Your task to perform on an android device: Search for a 4k TV on Best Buy Image 0: 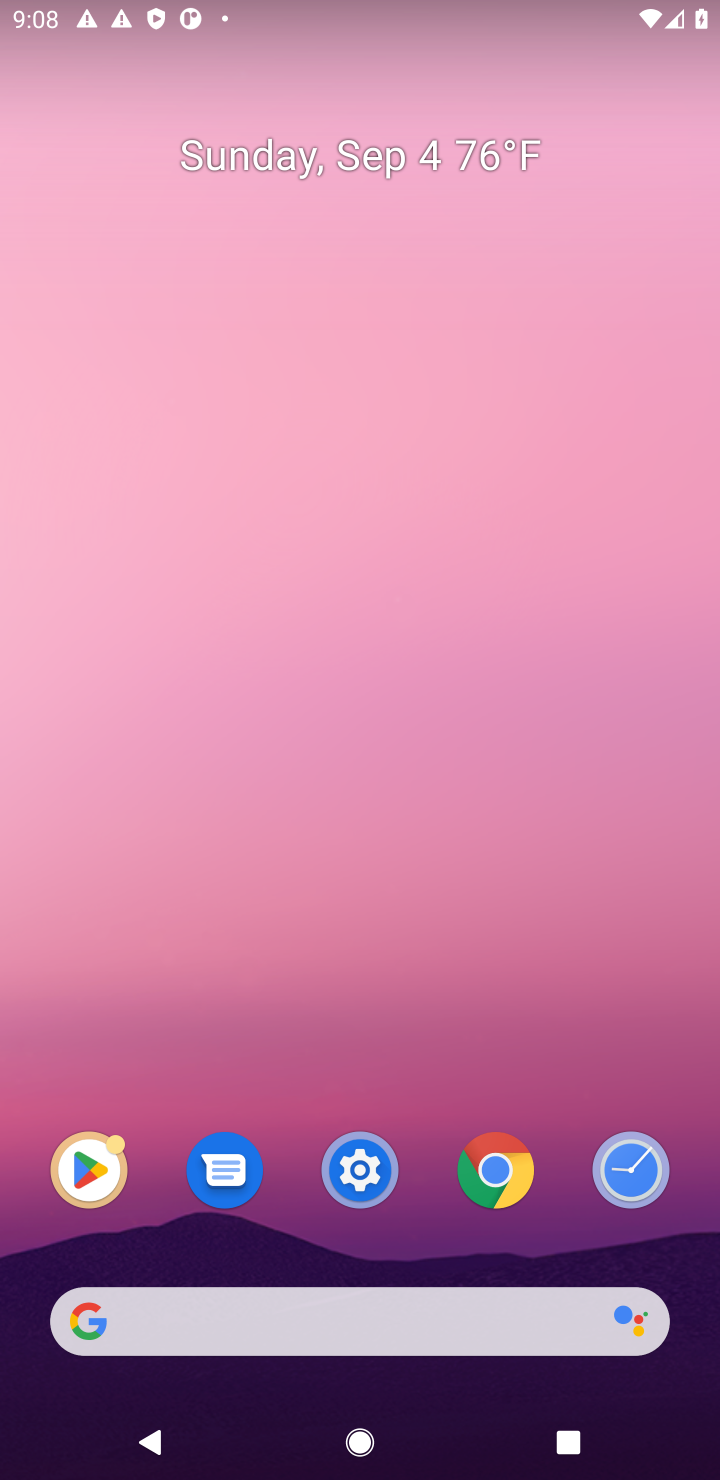
Step 0: click (386, 1307)
Your task to perform on an android device: Search for a 4k TV on Best Buy Image 1: 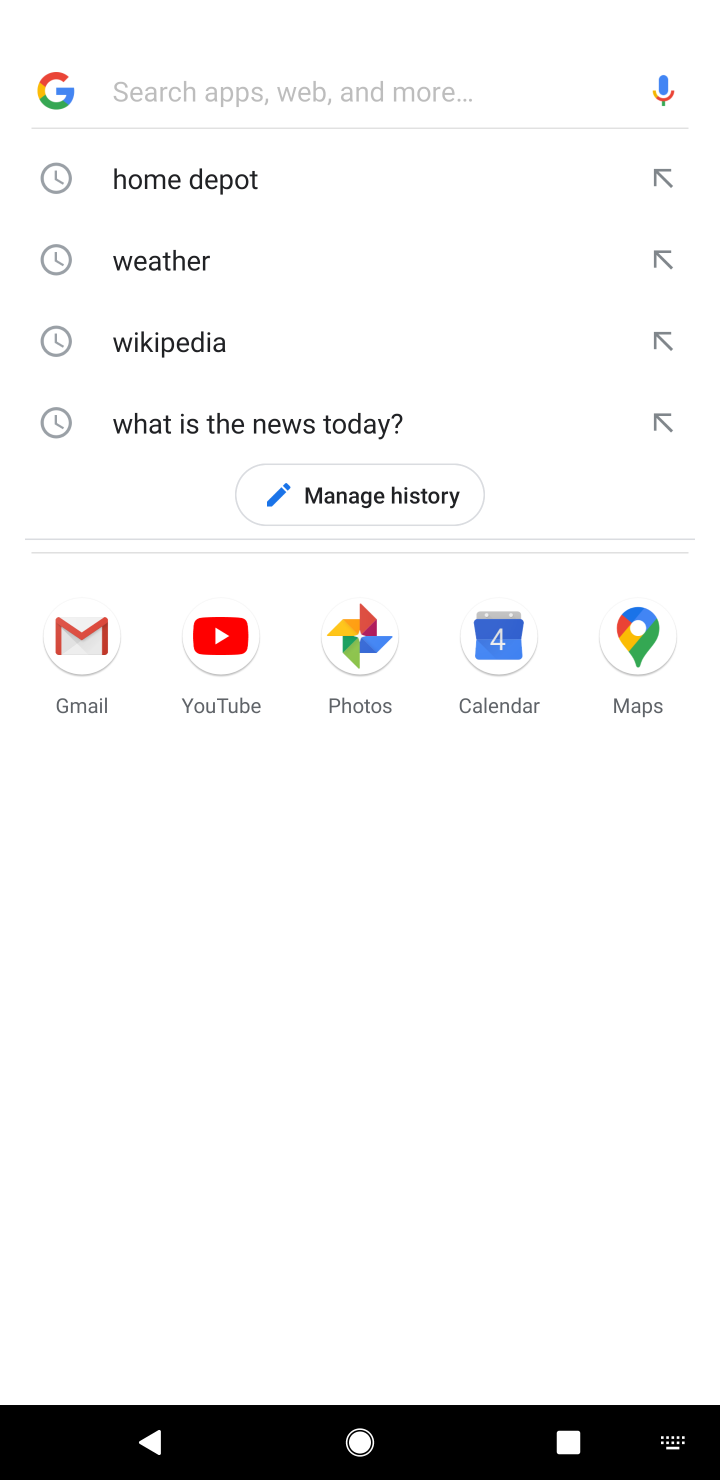
Step 1: type "Best Buy"
Your task to perform on an android device: Search for a 4k TV on Best Buy Image 2: 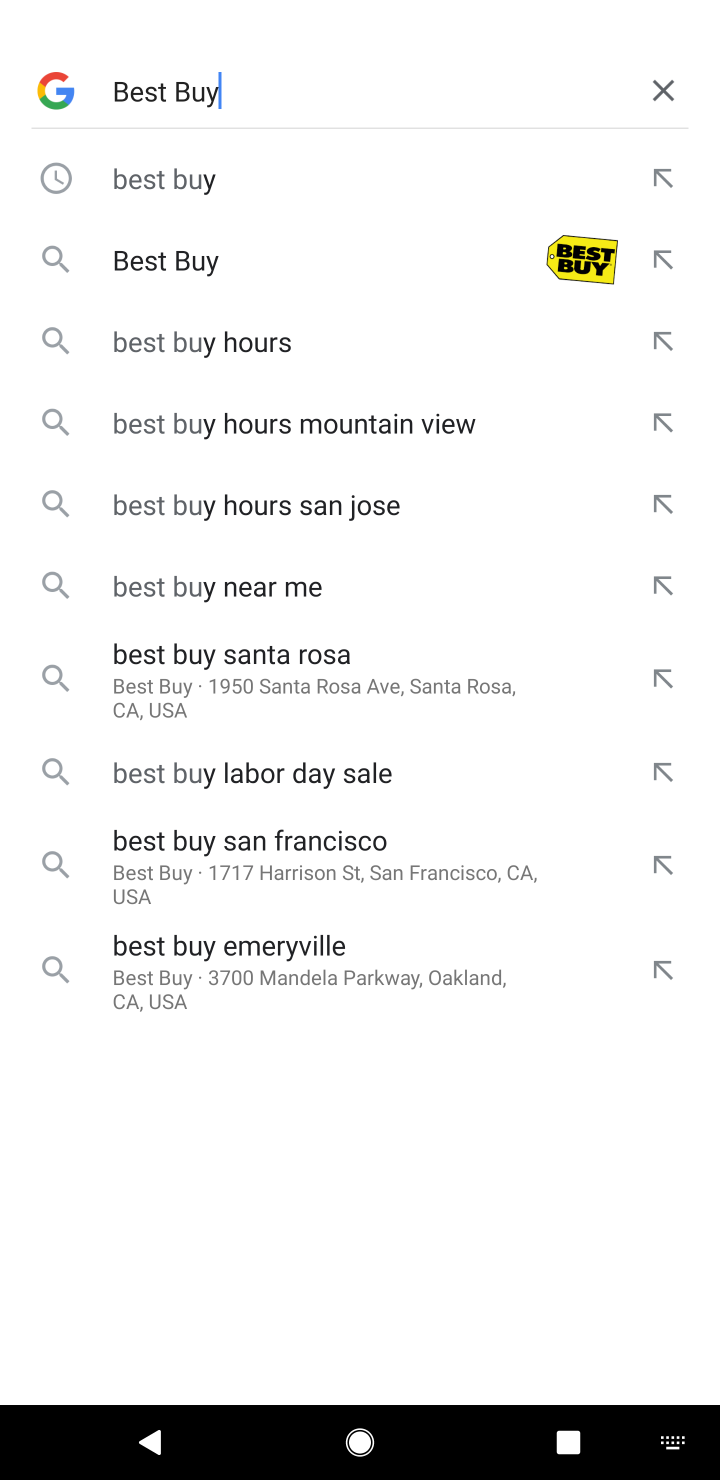
Step 2: type ""
Your task to perform on an android device: Search for a 4k TV on Best Buy Image 3: 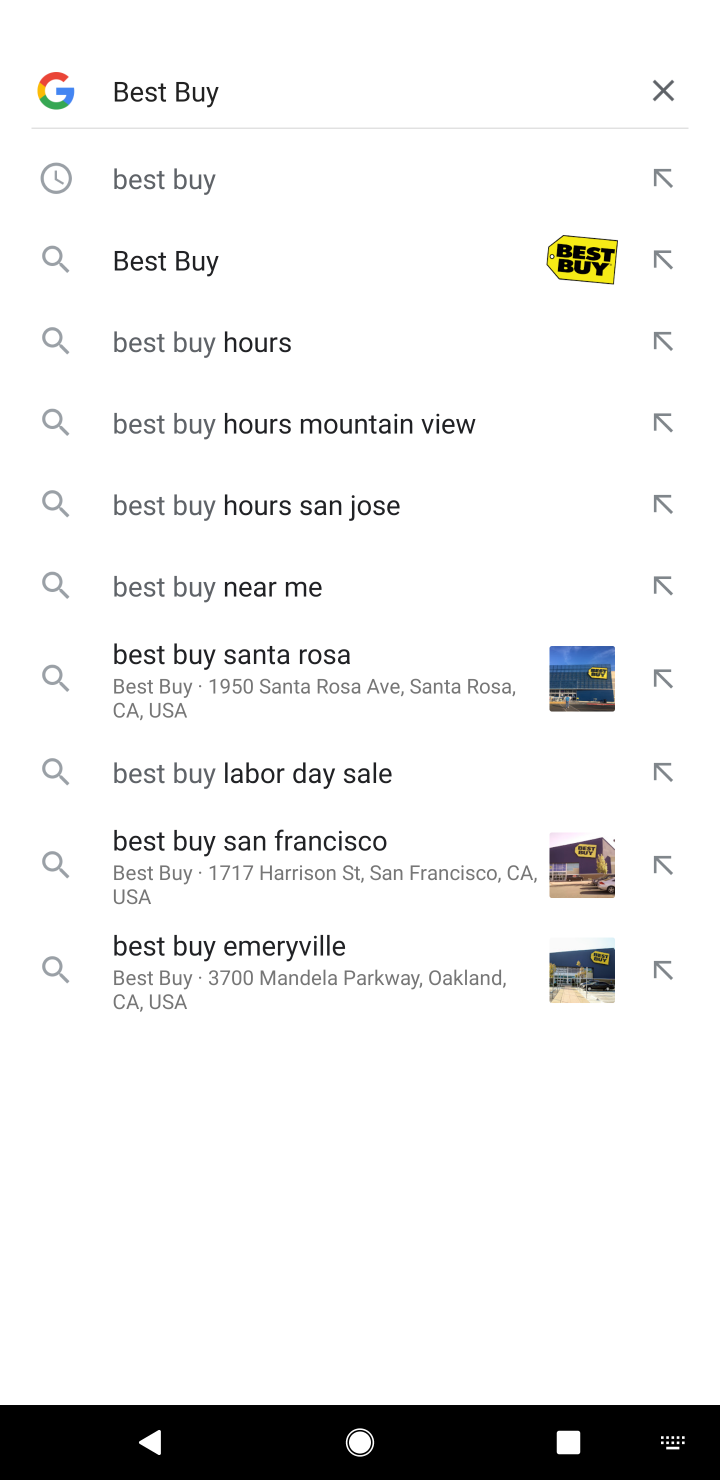
Step 3: click (258, 176)
Your task to perform on an android device: Search for a 4k TV on Best Buy Image 4: 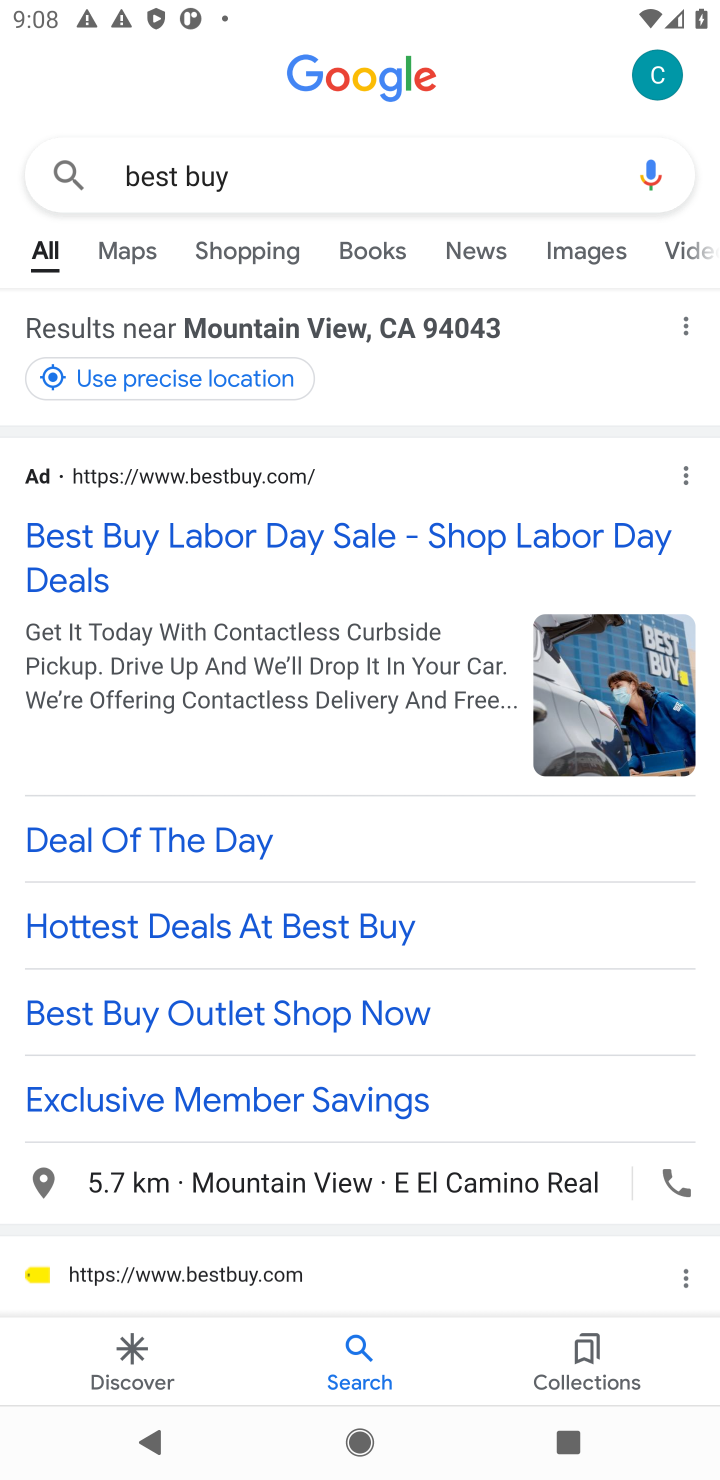
Step 4: drag from (291, 689) to (323, 227)
Your task to perform on an android device: Search for a 4k TV on Best Buy Image 5: 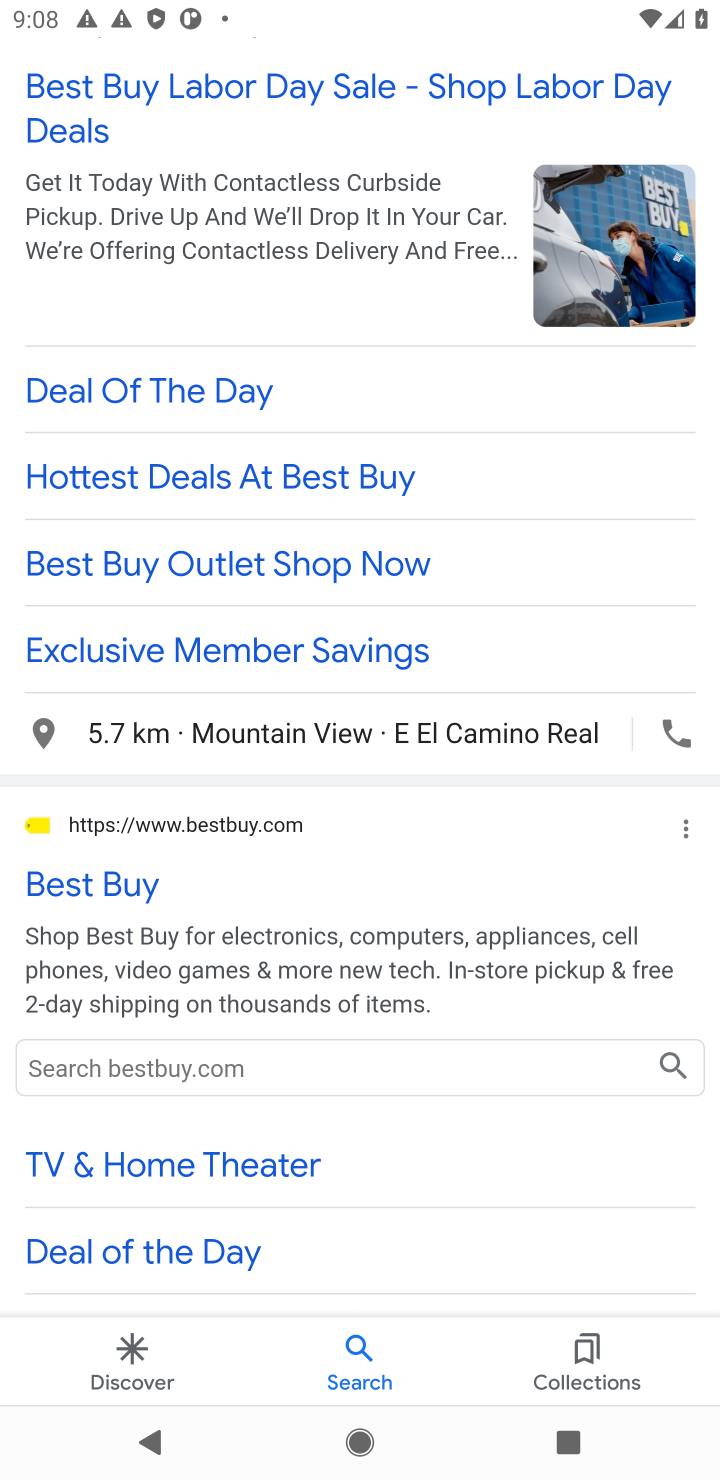
Step 5: drag from (347, 540) to (378, 406)
Your task to perform on an android device: Search for a 4k TV on Best Buy Image 6: 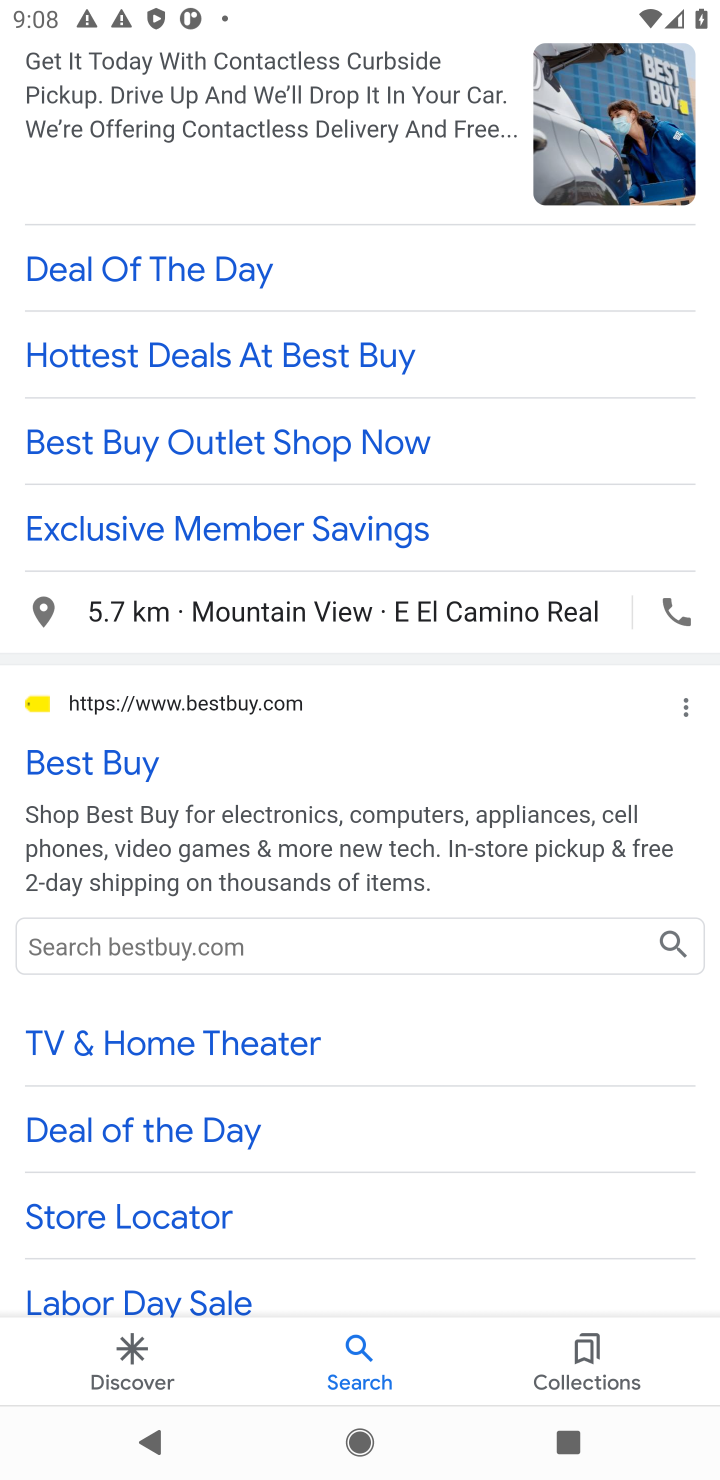
Step 6: click (113, 762)
Your task to perform on an android device: Search for a 4k TV on Best Buy Image 7: 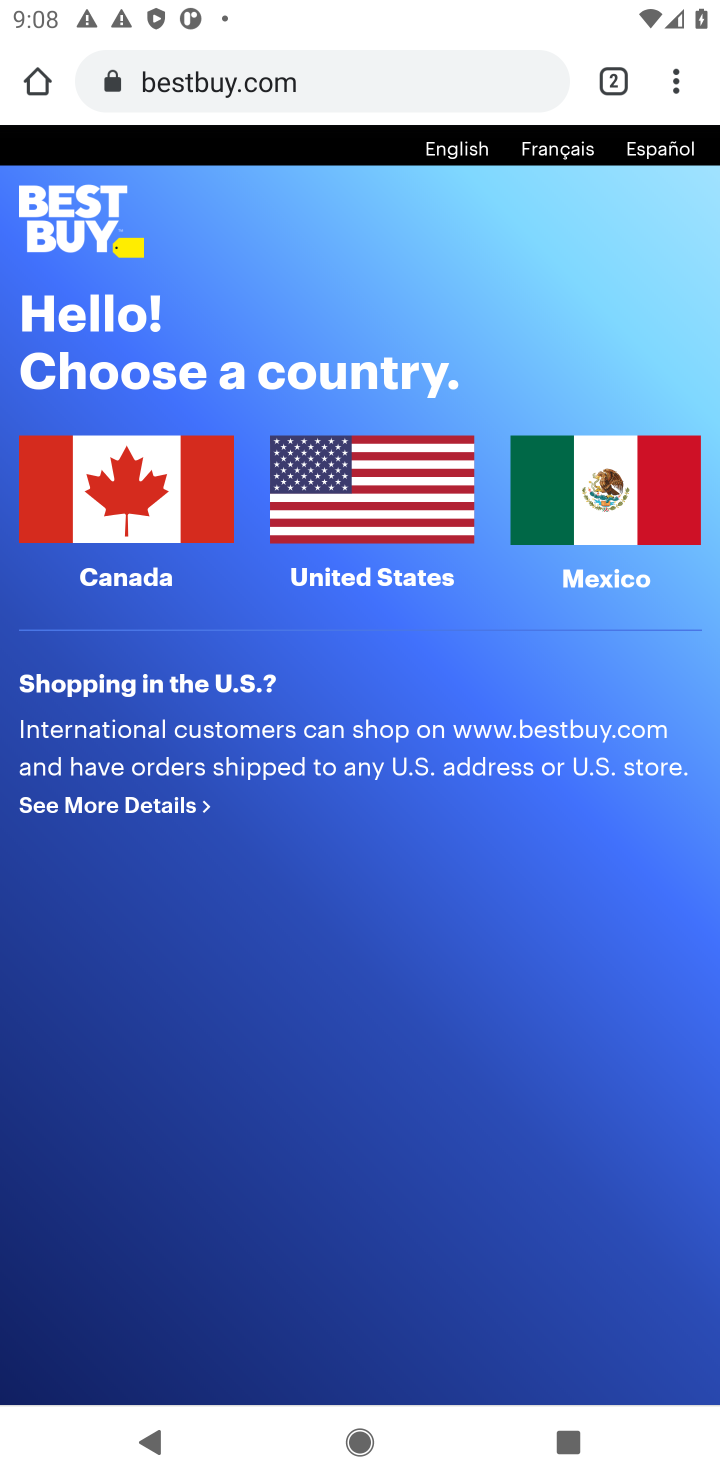
Step 7: click (330, 532)
Your task to perform on an android device: Search for a 4k TV on Best Buy Image 8: 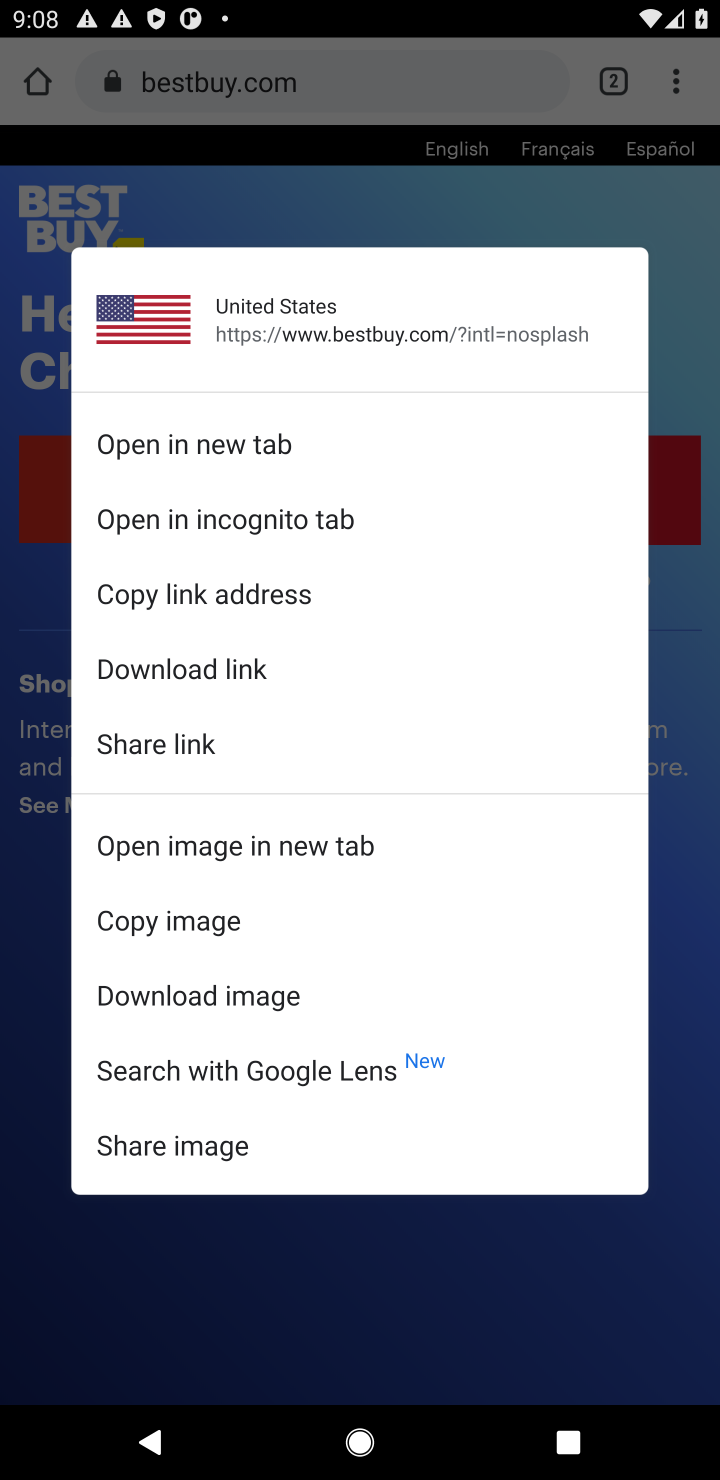
Step 8: click (113, 1267)
Your task to perform on an android device: Search for a 4k TV on Best Buy Image 9: 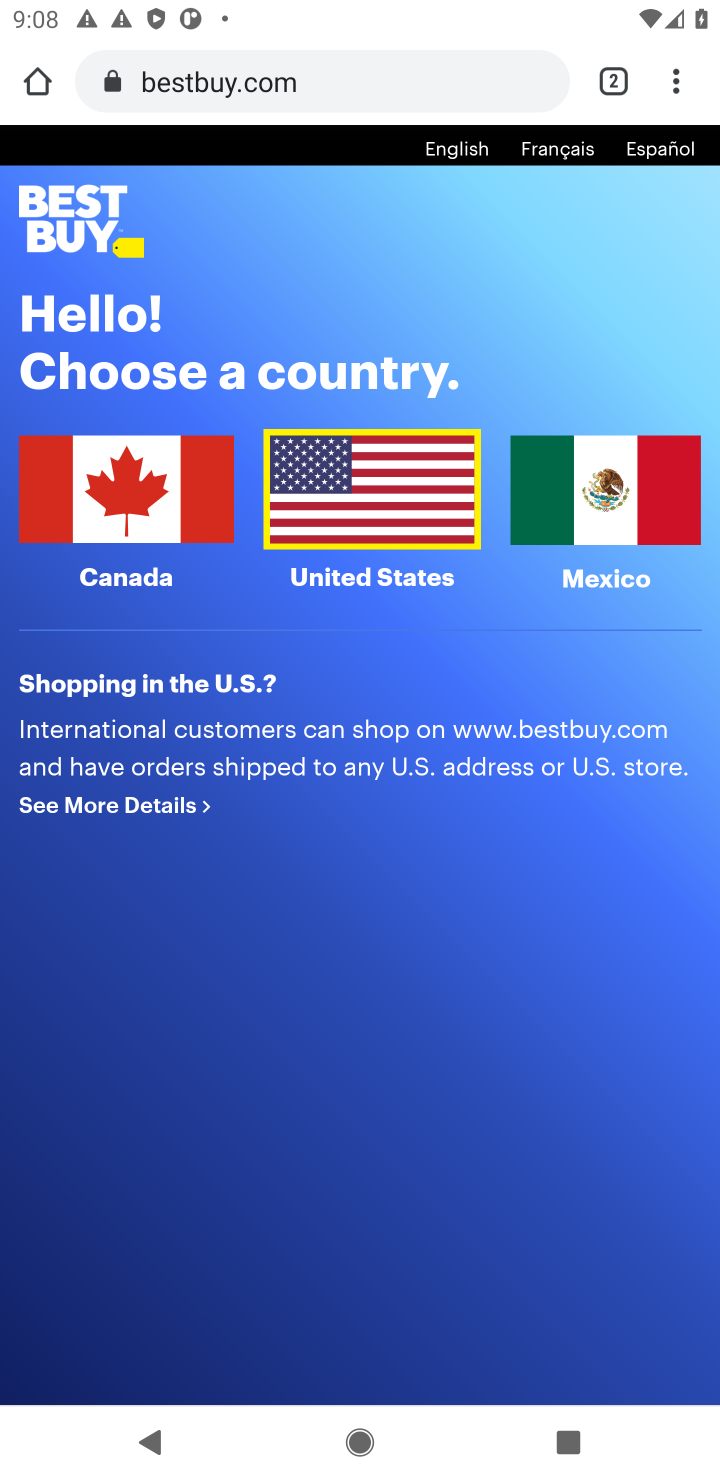
Step 9: click (397, 524)
Your task to perform on an android device: Search for a 4k TV on Best Buy Image 10: 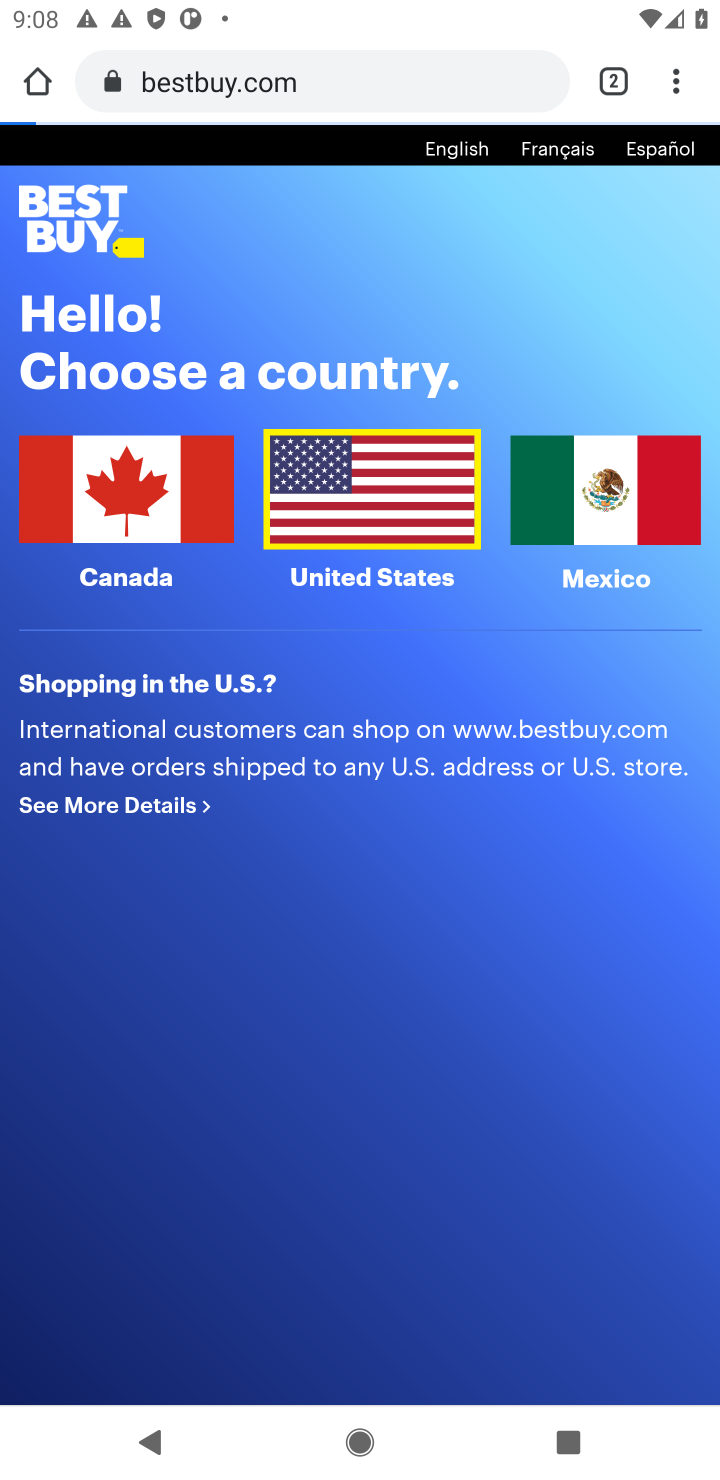
Step 10: click (371, 501)
Your task to perform on an android device: Search for a 4k TV on Best Buy Image 11: 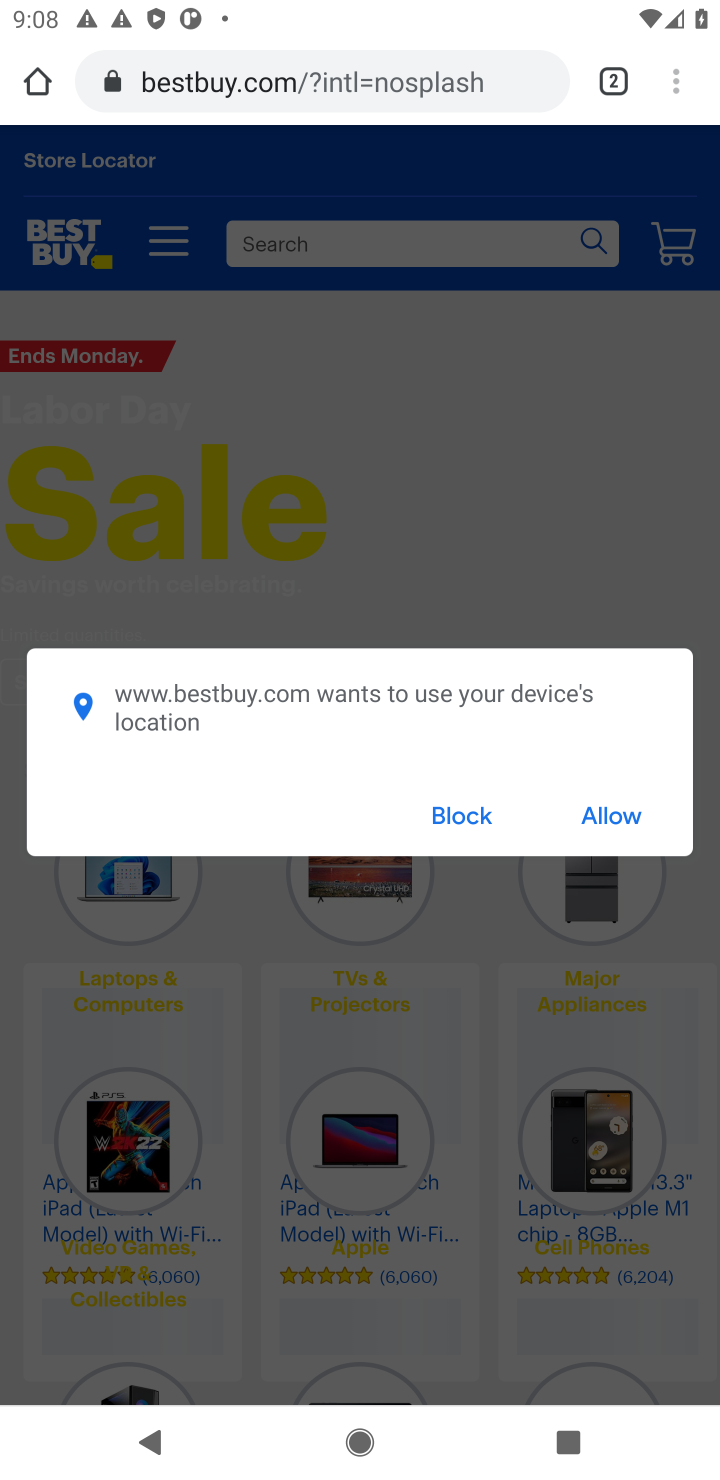
Step 11: click (447, 249)
Your task to perform on an android device: Search for a 4k TV on Best Buy Image 12: 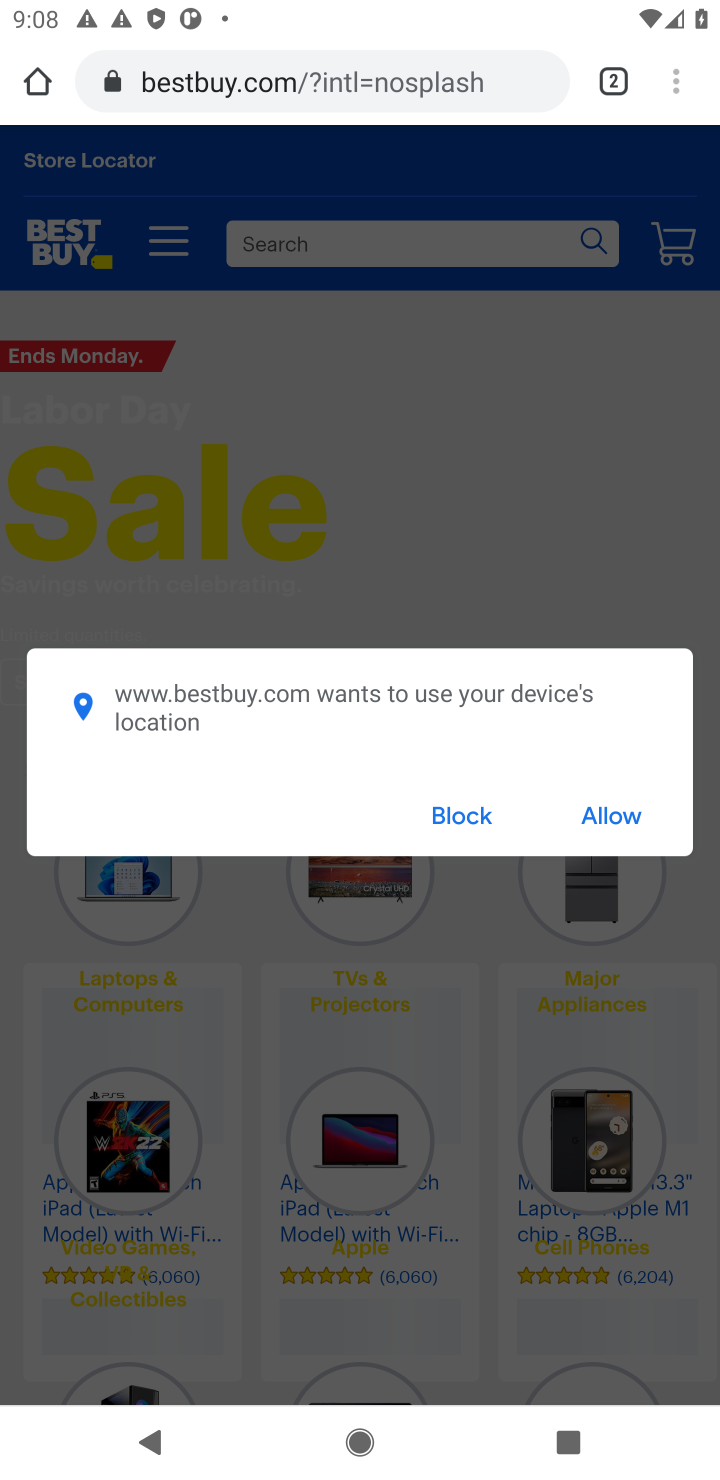
Step 12: click (620, 818)
Your task to perform on an android device: Search for a 4k TV on Best Buy Image 13: 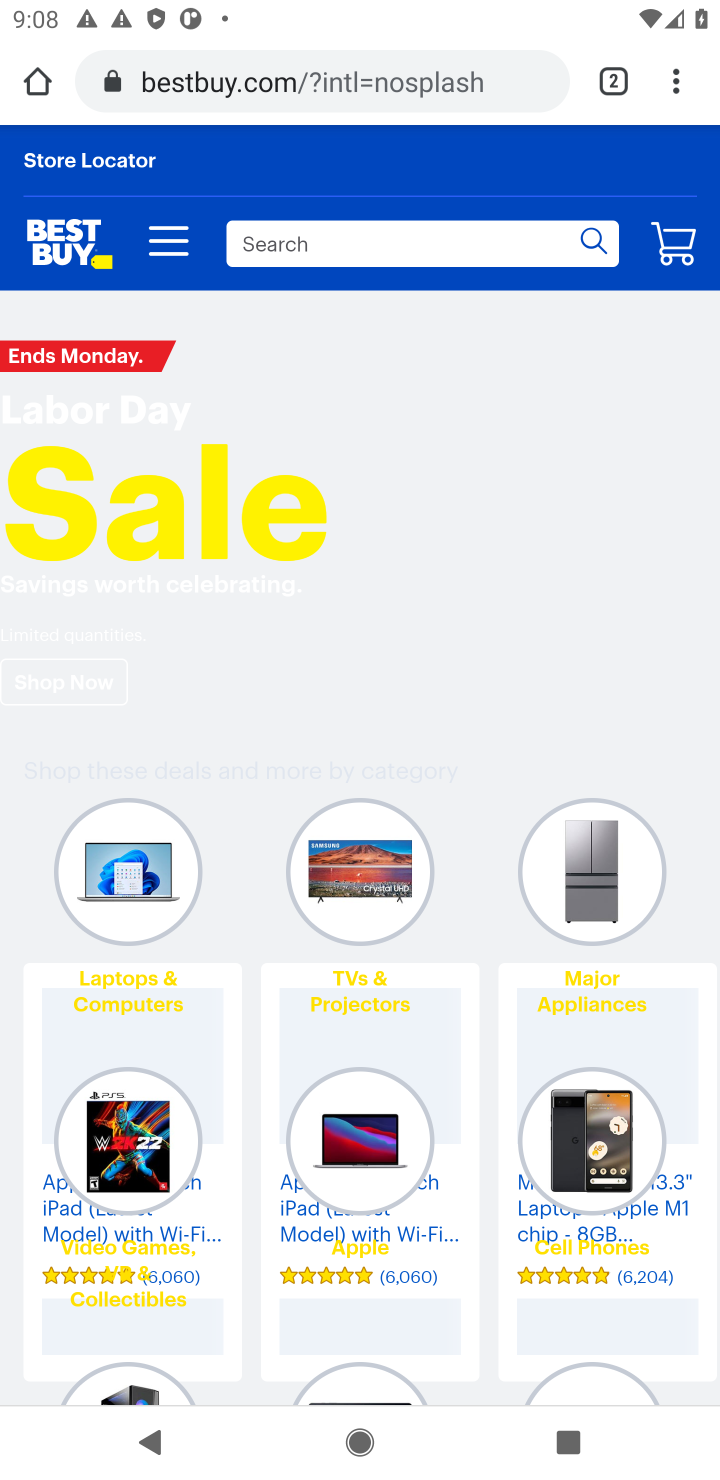
Step 13: click (407, 234)
Your task to perform on an android device: Search for a 4k TV on Best Buy Image 14: 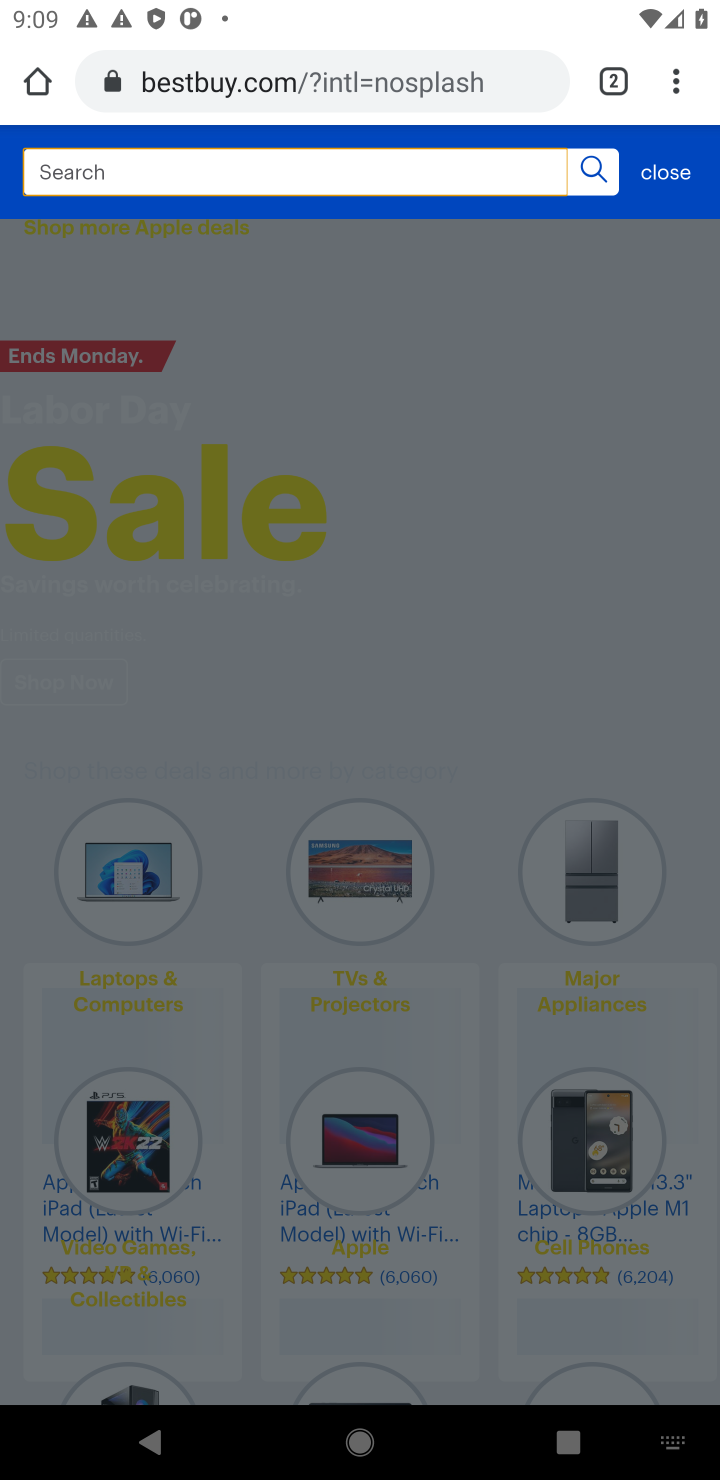
Step 14: type "4k TV "
Your task to perform on an android device: Search for a 4k TV on Best Buy Image 15: 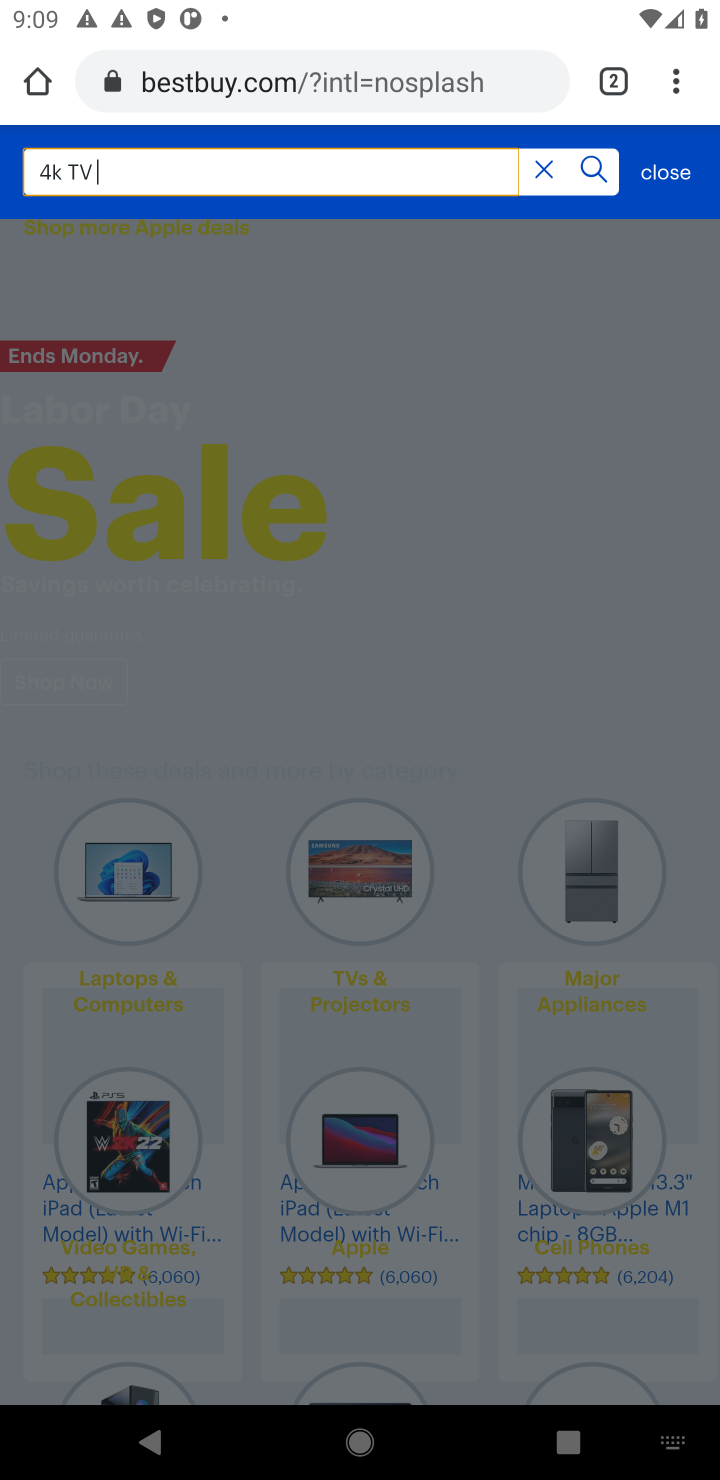
Step 15: type ""
Your task to perform on an android device: Search for a 4k TV on Best Buy Image 16: 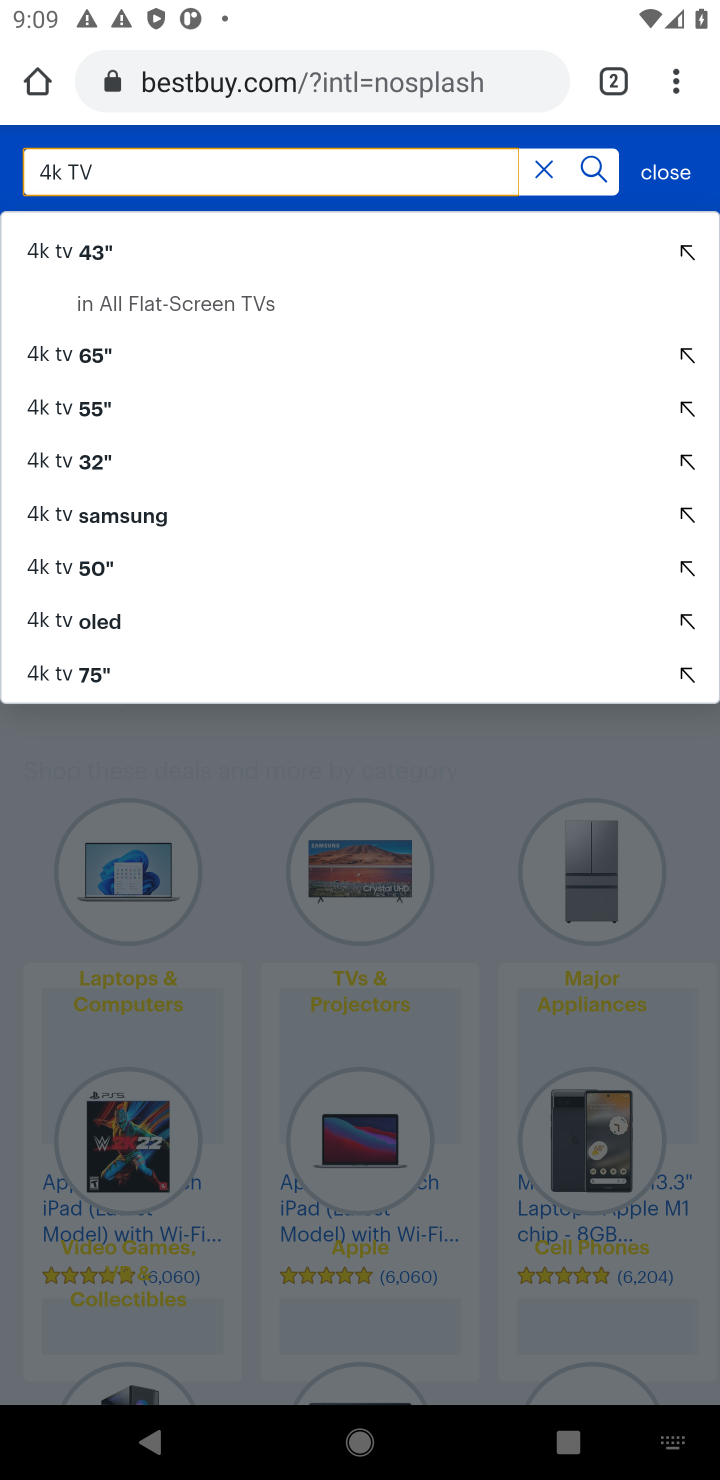
Step 16: click (608, 173)
Your task to perform on an android device: Search for a 4k TV on Best Buy Image 17: 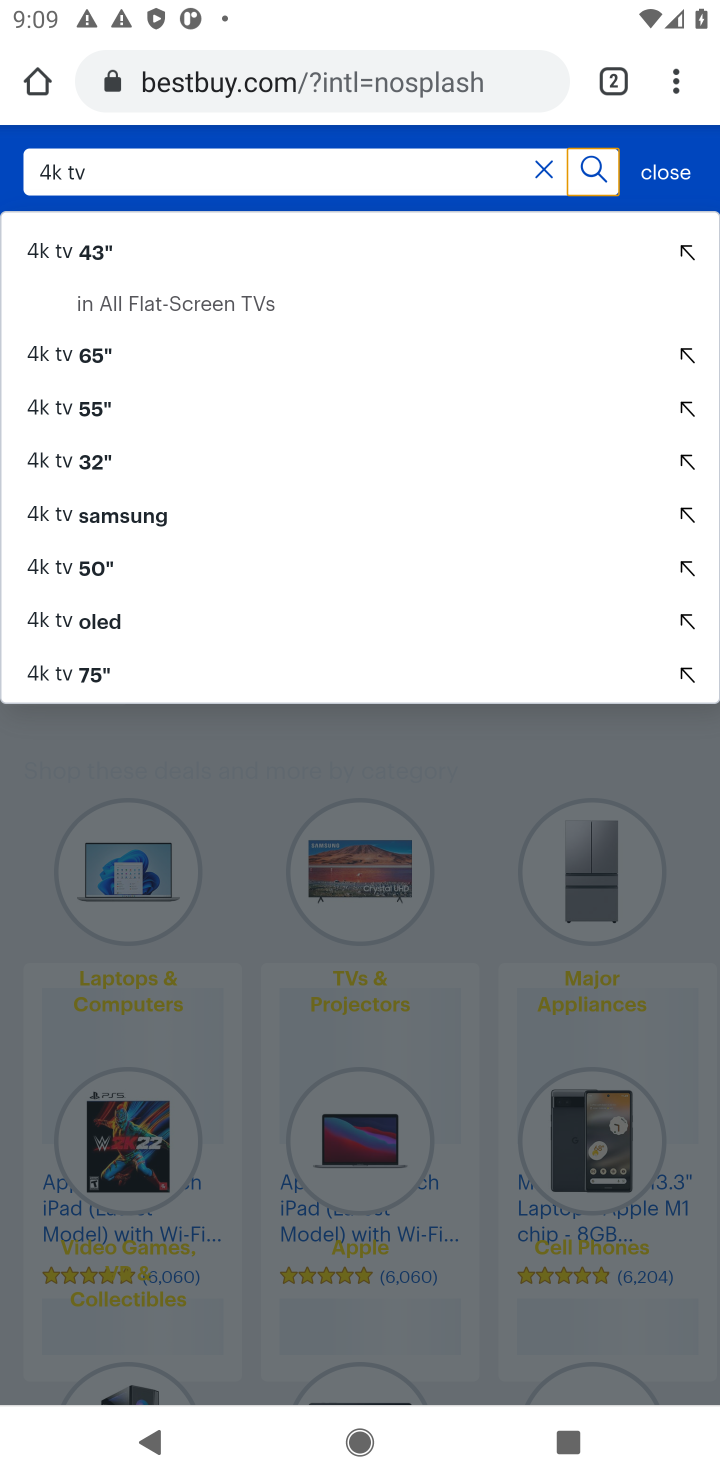
Step 17: click (596, 156)
Your task to perform on an android device: Search for a 4k TV on Best Buy Image 18: 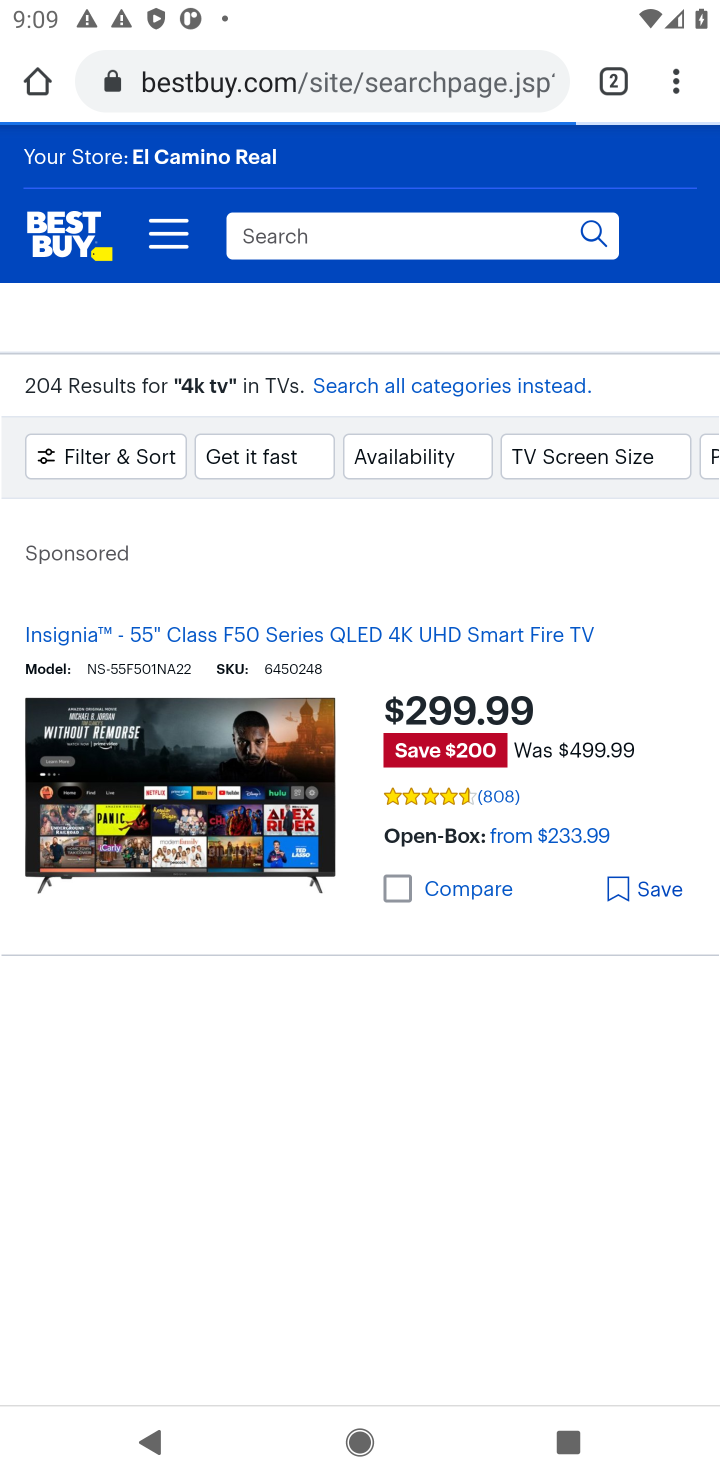
Step 18: click (593, 162)
Your task to perform on an android device: Search for a 4k TV on Best Buy Image 19: 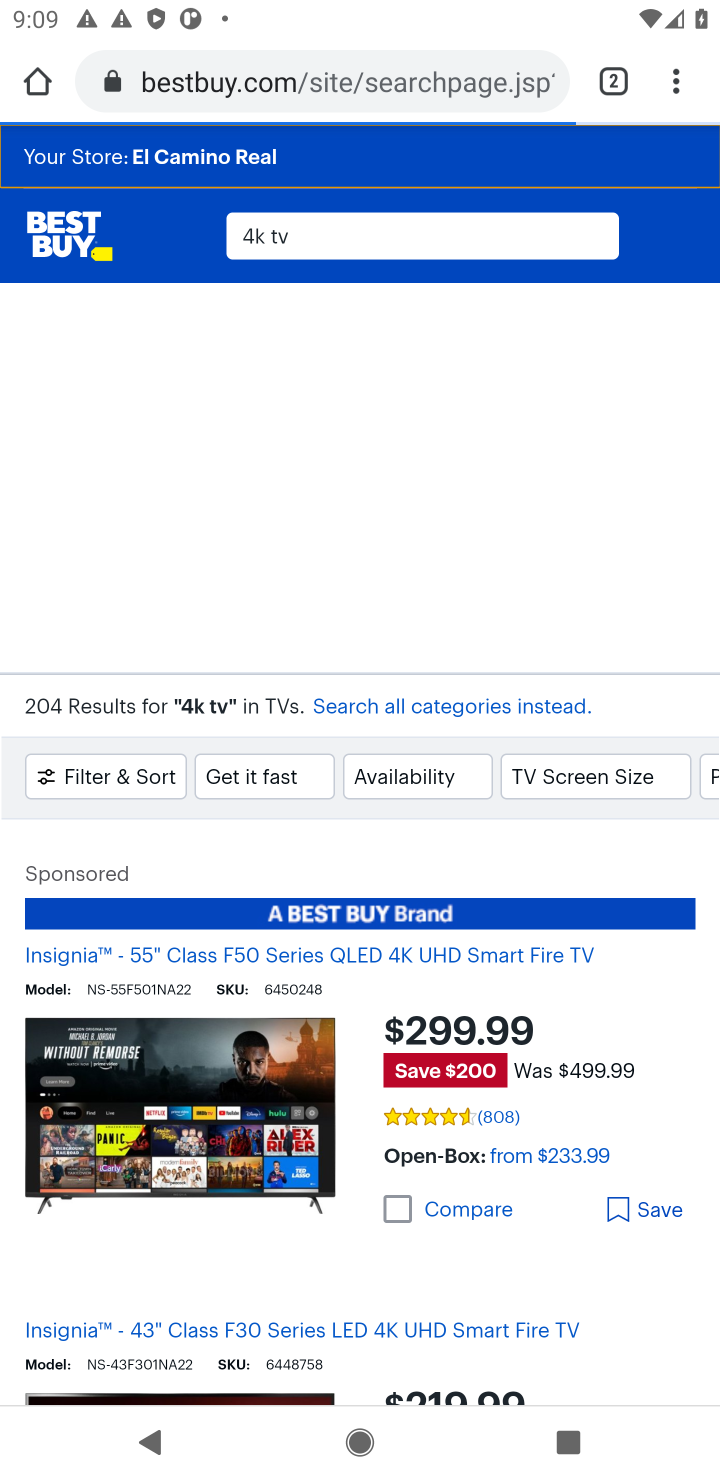
Step 19: click (526, 602)
Your task to perform on an android device: Search for a 4k TV on Best Buy Image 20: 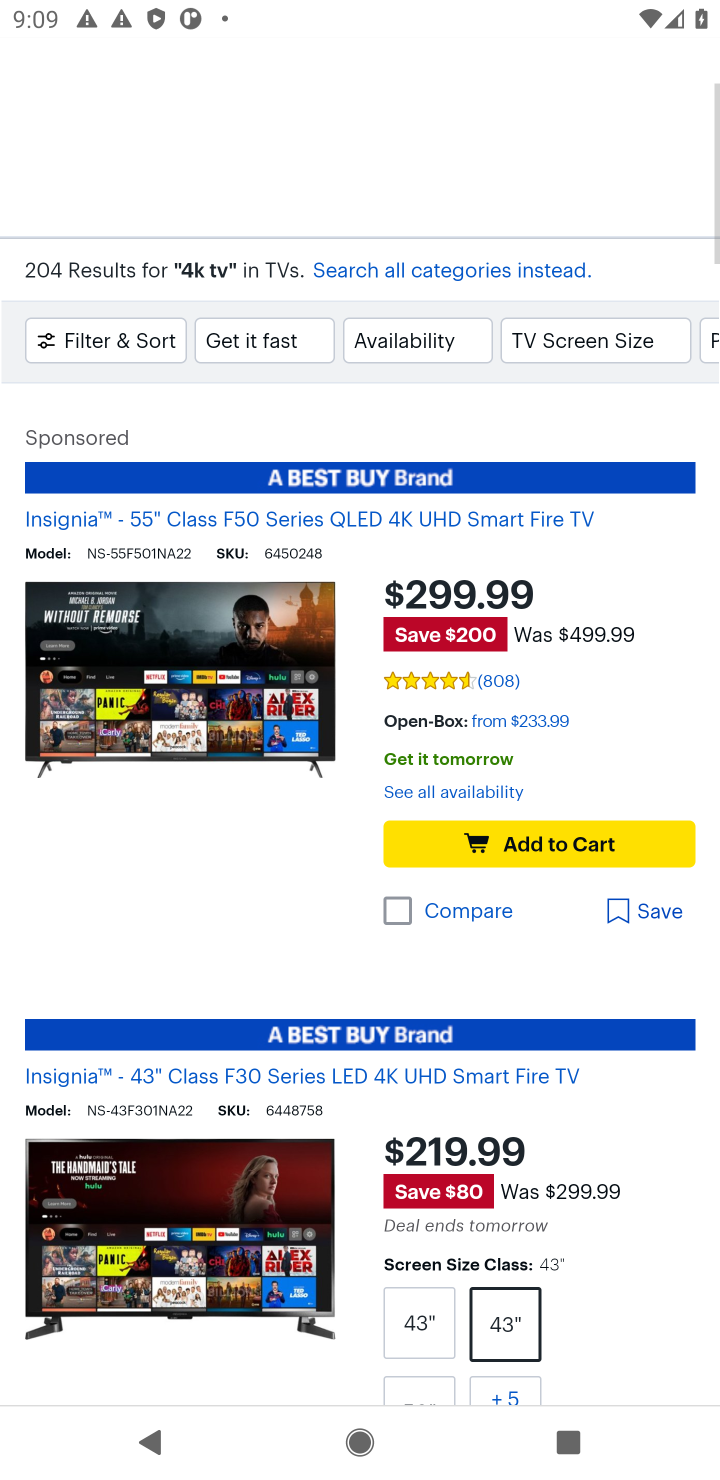
Step 20: task complete